Your task to perform on an android device: check data usage Image 0: 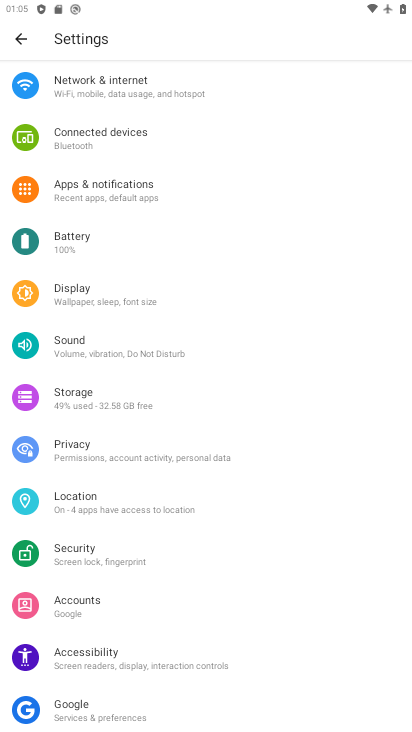
Step 0: click (153, 97)
Your task to perform on an android device: check data usage Image 1: 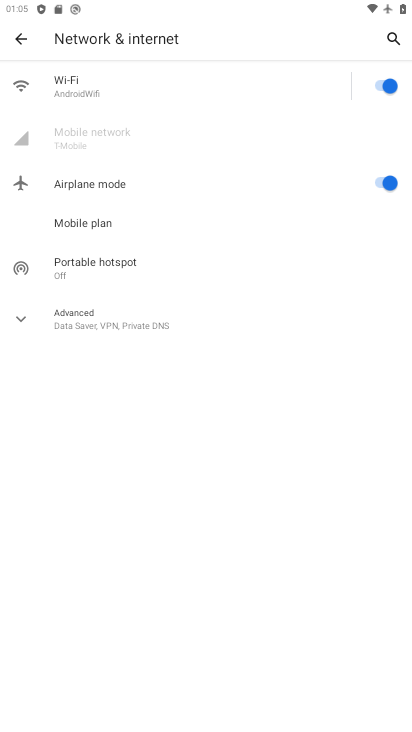
Step 1: task complete